Your task to perform on an android device: Is it going to rain tomorrow? Image 0: 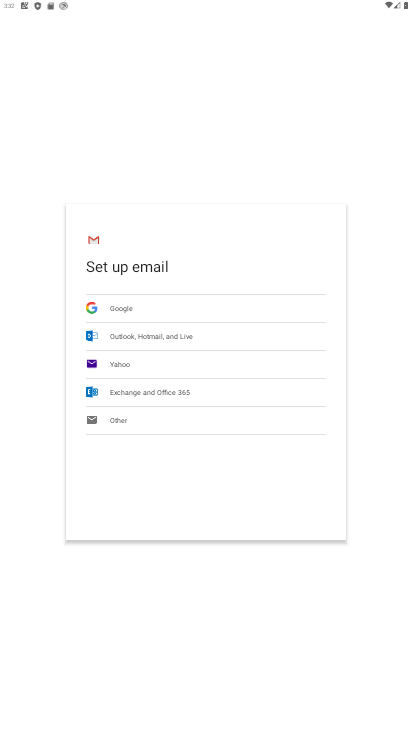
Step 0: press home button
Your task to perform on an android device: Is it going to rain tomorrow? Image 1: 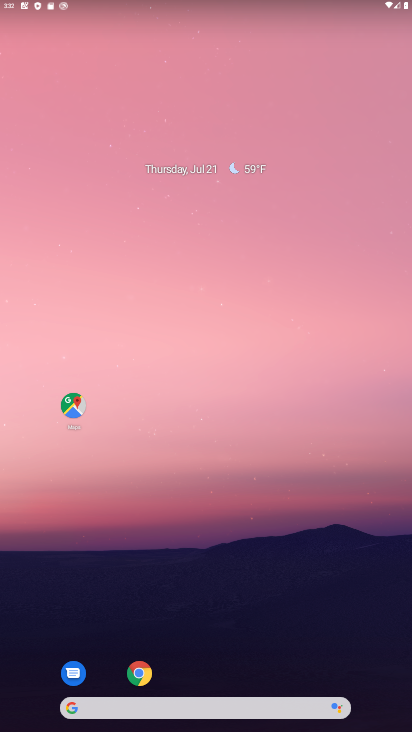
Step 1: click (241, 164)
Your task to perform on an android device: Is it going to rain tomorrow? Image 2: 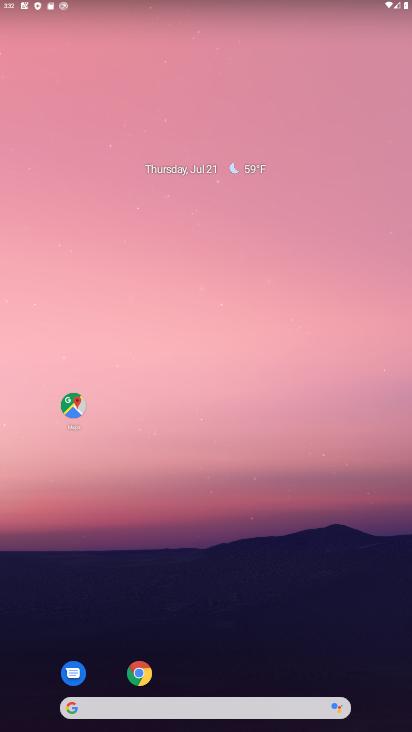
Step 2: drag from (4, 267) to (402, 318)
Your task to perform on an android device: Is it going to rain tomorrow? Image 3: 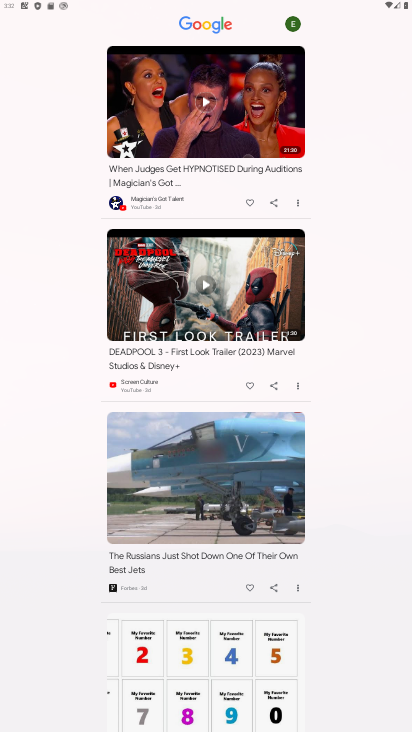
Step 3: drag from (403, 359) to (21, 321)
Your task to perform on an android device: Is it going to rain tomorrow? Image 4: 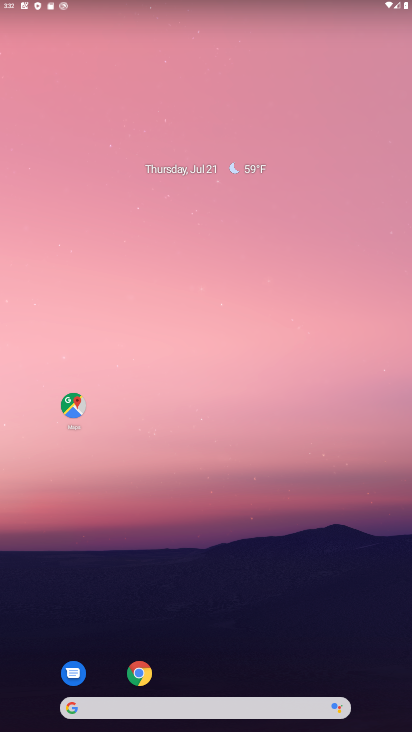
Step 4: click (179, 704)
Your task to perform on an android device: Is it going to rain tomorrow? Image 5: 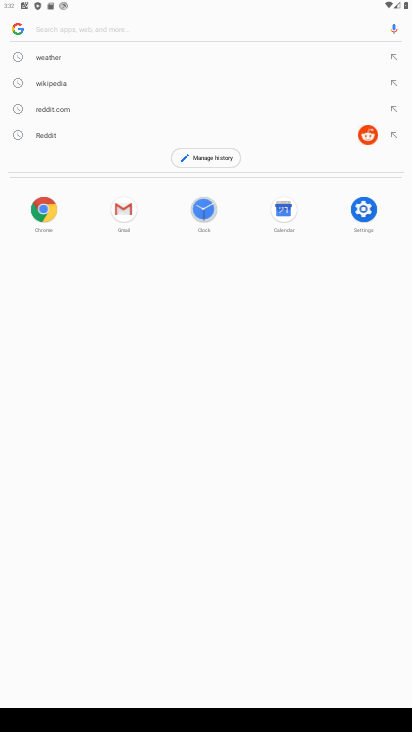
Step 5: click (39, 54)
Your task to perform on an android device: Is it going to rain tomorrow? Image 6: 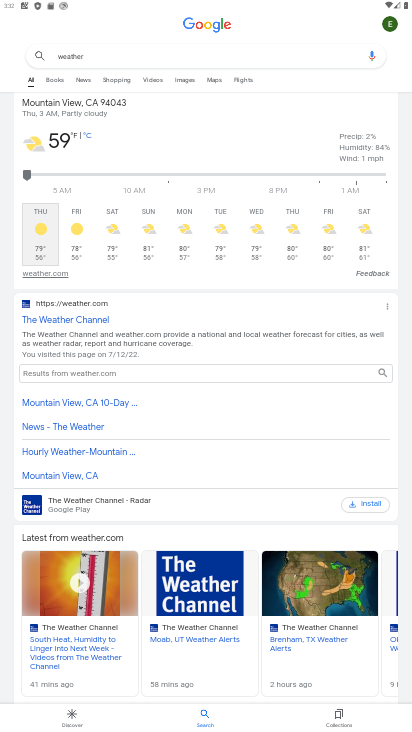
Step 6: task complete